Your task to perform on an android device: turn off airplane mode Image 0: 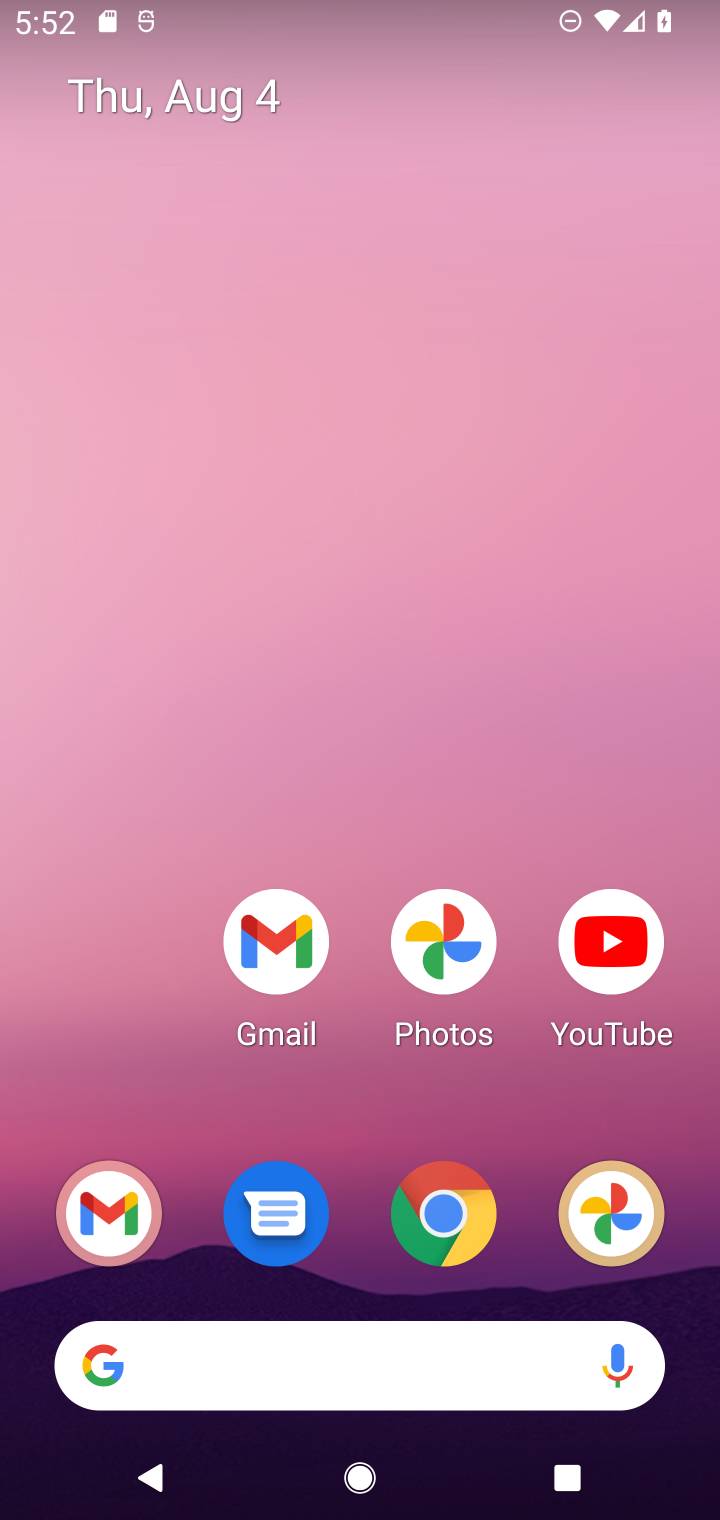
Step 0: press home button
Your task to perform on an android device: turn off airplane mode Image 1: 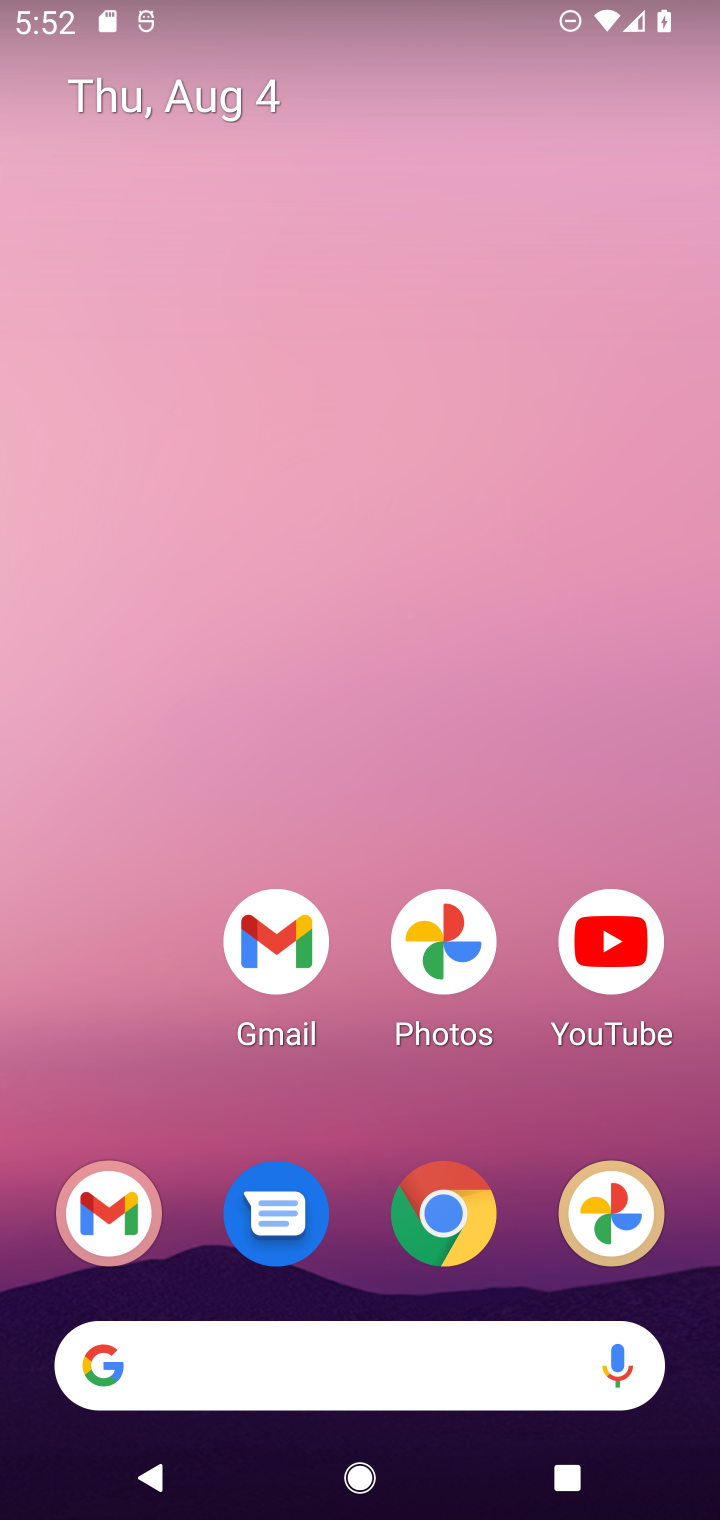
Step 1: drag from (162, 1034) to (204, 367)
Your task to perform on an android device: turn off airplane mode Image 2: 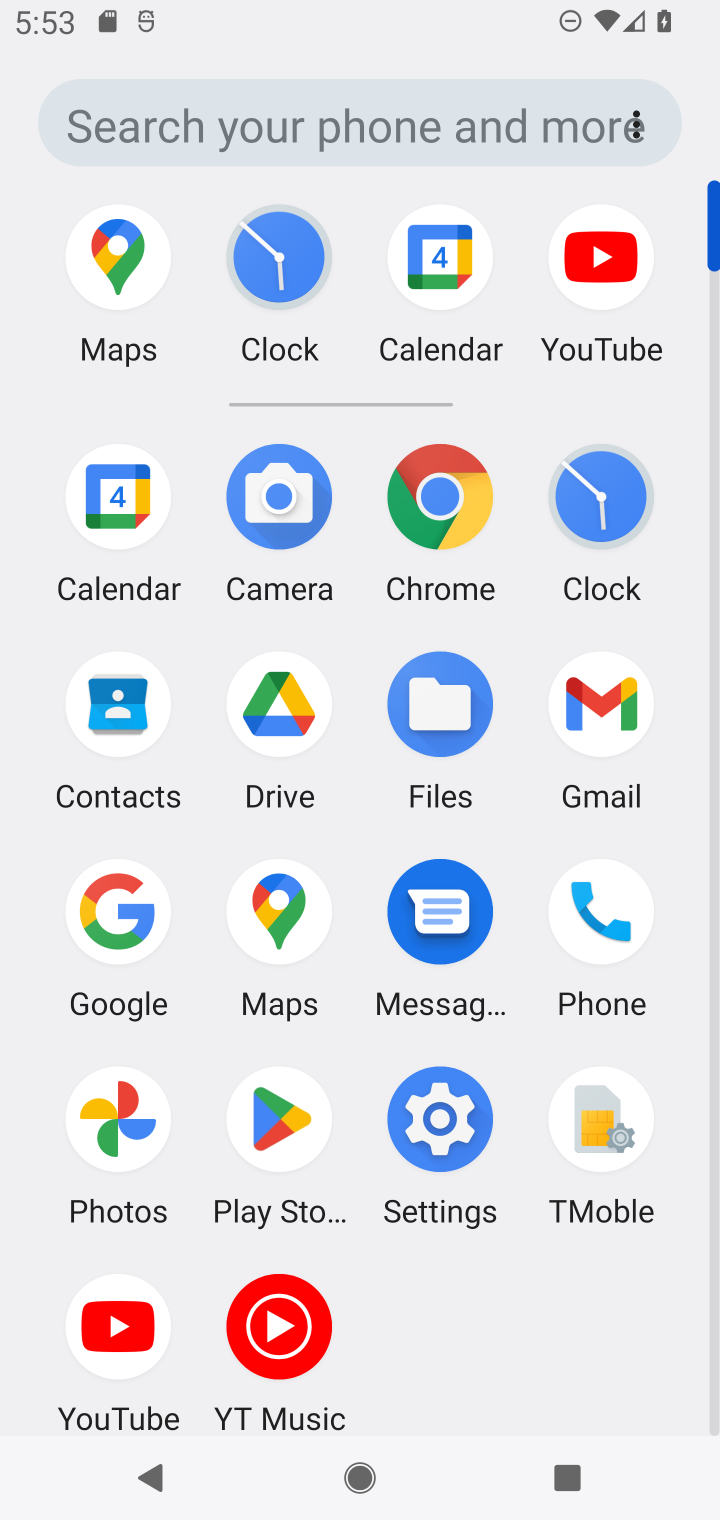
Step 2: click (445, 1128)
Your task to perform on an android device: turn off airplane mode Image 3: 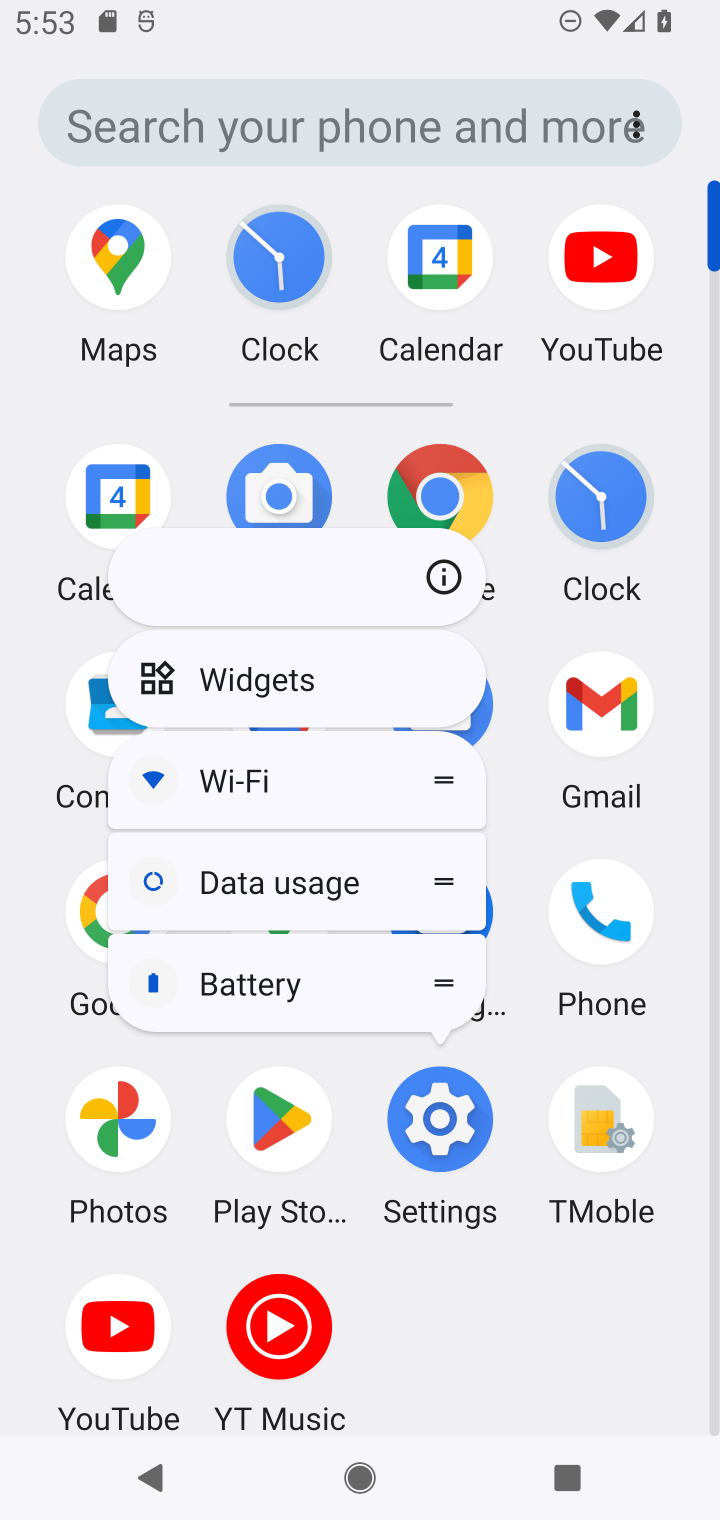
Step 3: click (451, 1119)
Your task to perform on an android device: turn off airplane mode Image 4: 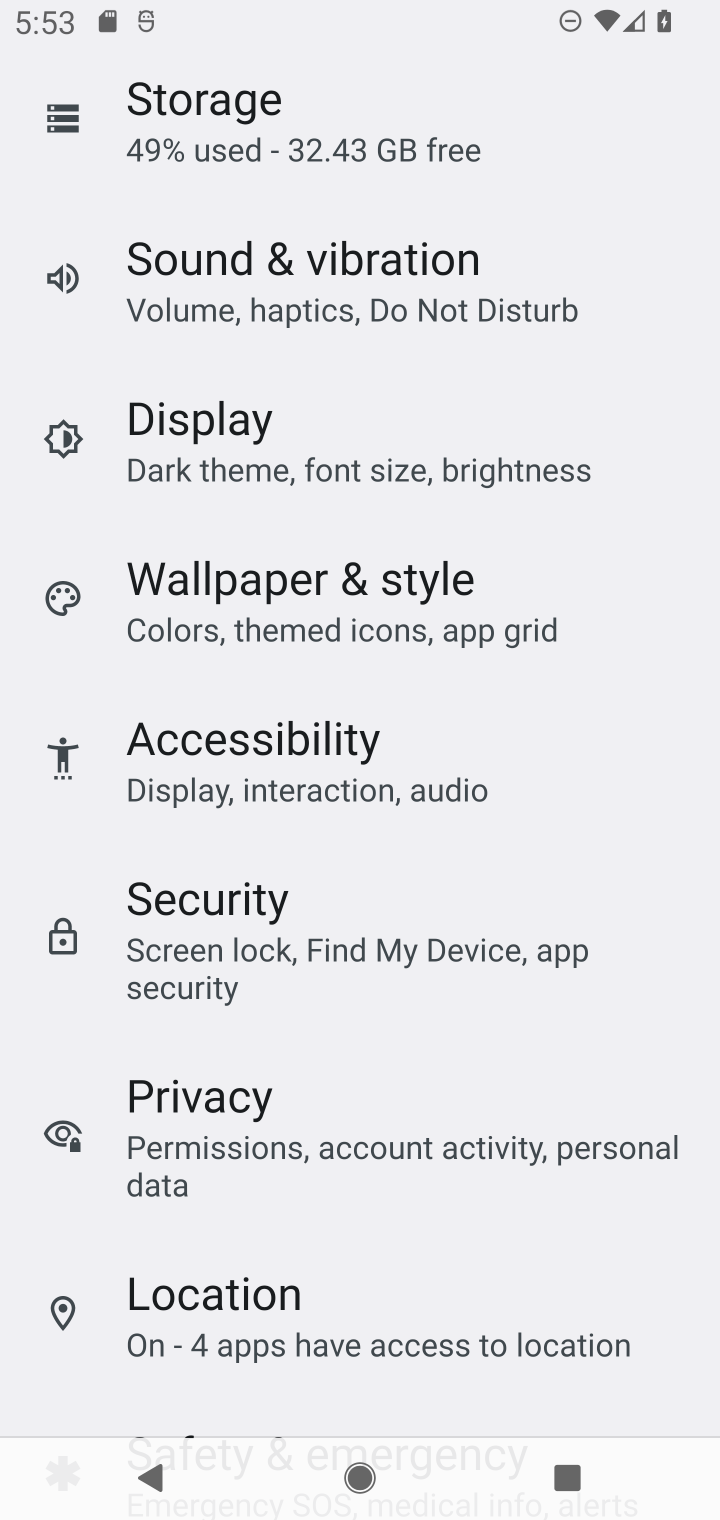
Step 4: drag from (607, 583) to (645, 887)
Your task to perform on an android device: turn off airplane mode Image 5: 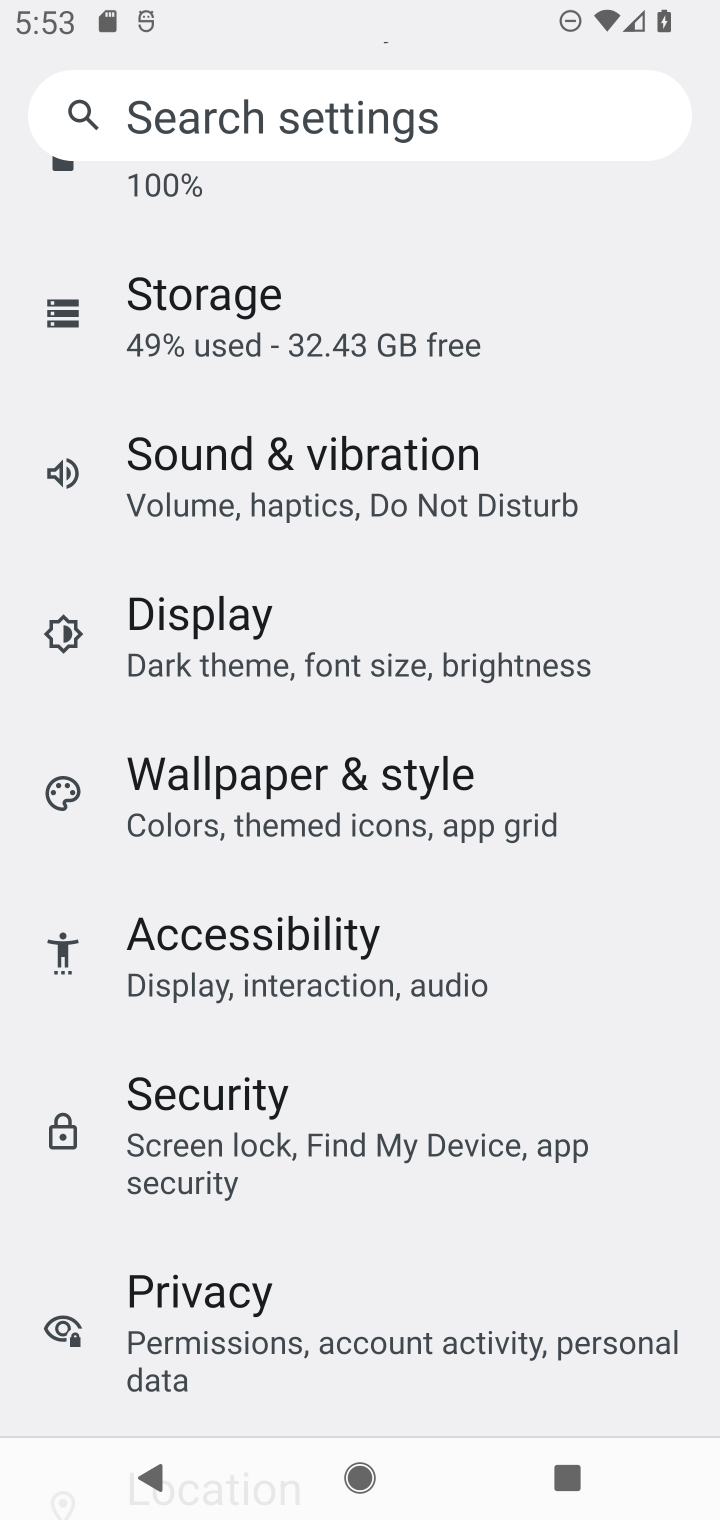
Step 5: drag from (623, 611) to (663, 911)
Your task to perform on an android device: turn off airplane mode Image 6: 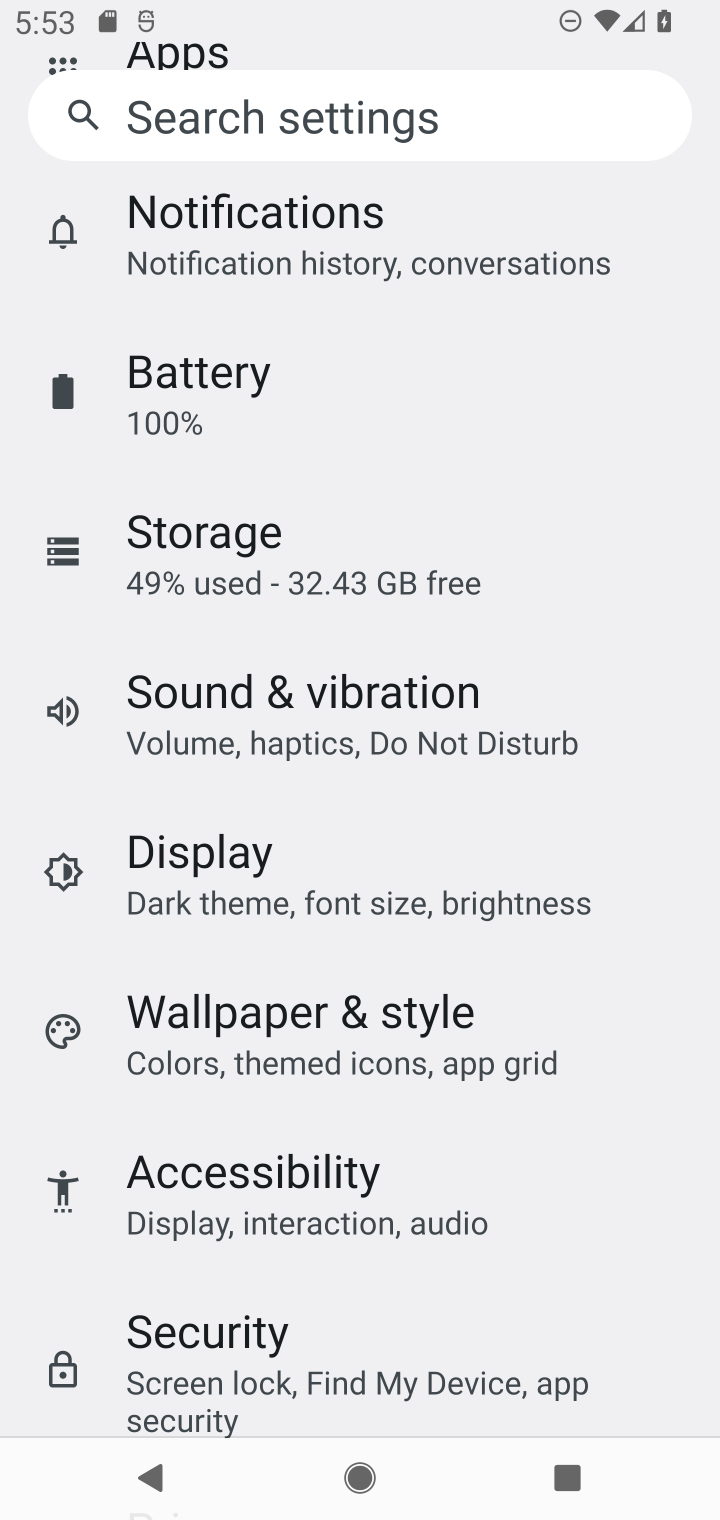
Step 6: drag from (610, 521) to (645, 848)
Your task to perform on an android device: turn off airplane mode Image 7: 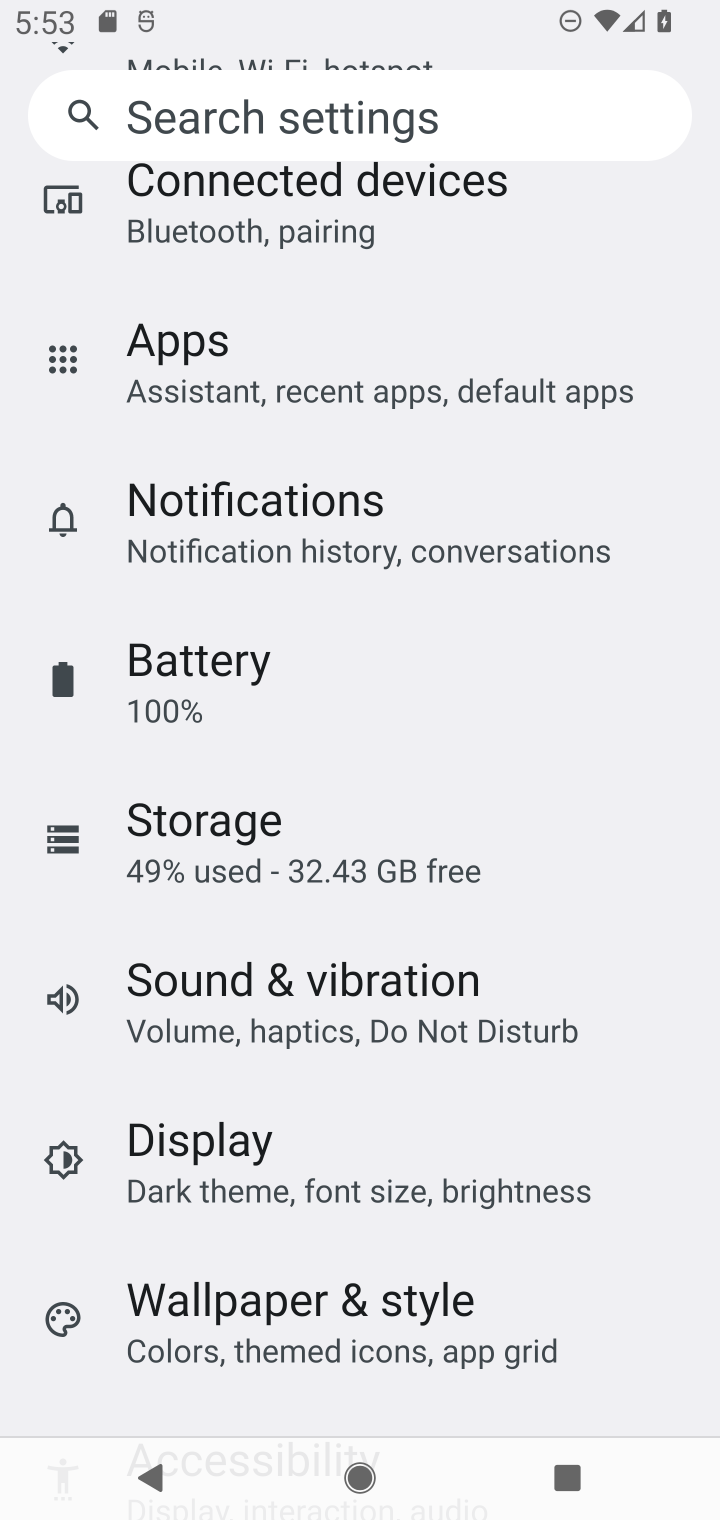
Step 7: drag from (630, 482) to (645, 918)
Your task to perform on an android device: turn off airplane mode Image 8: 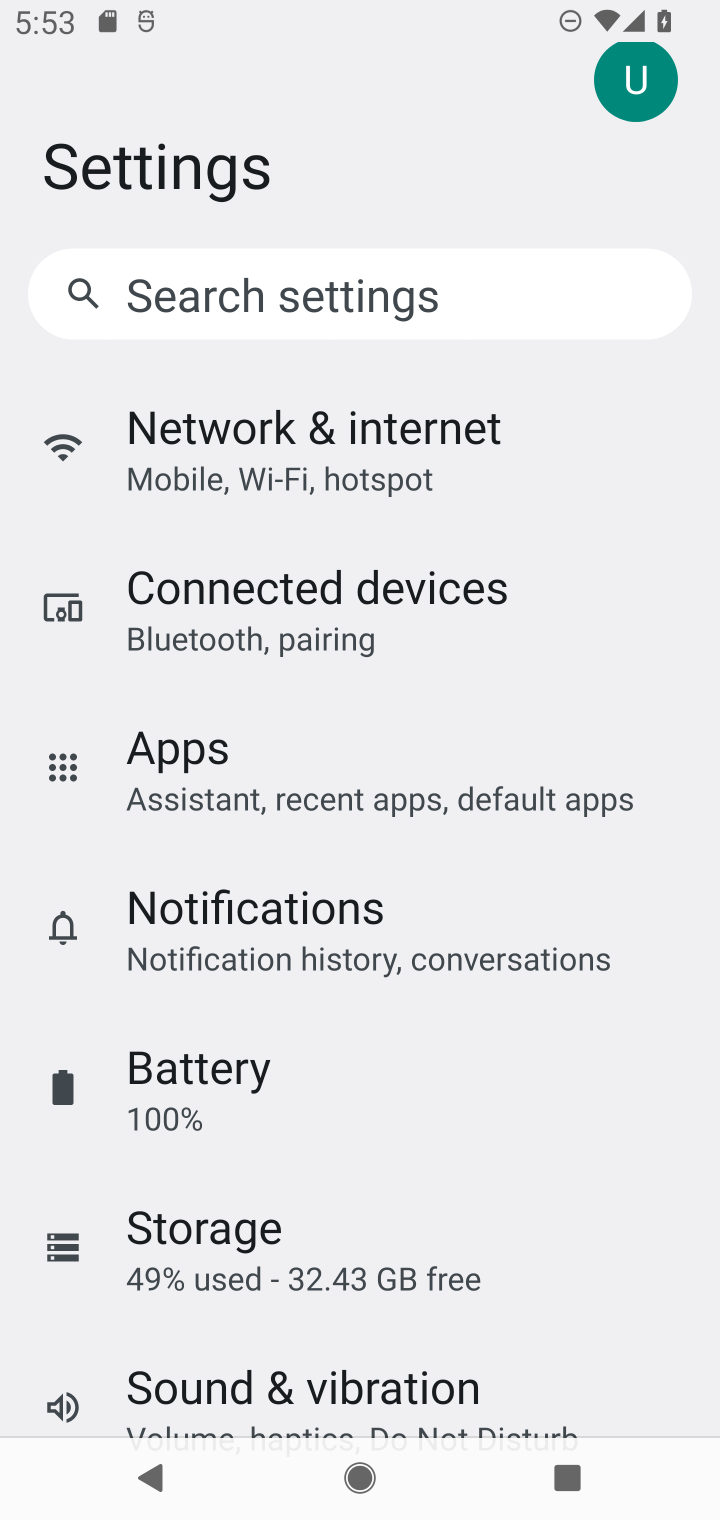
Step 8: click (430, 468)
Your task to perform on an android device: turn off airplane mode Image 9: 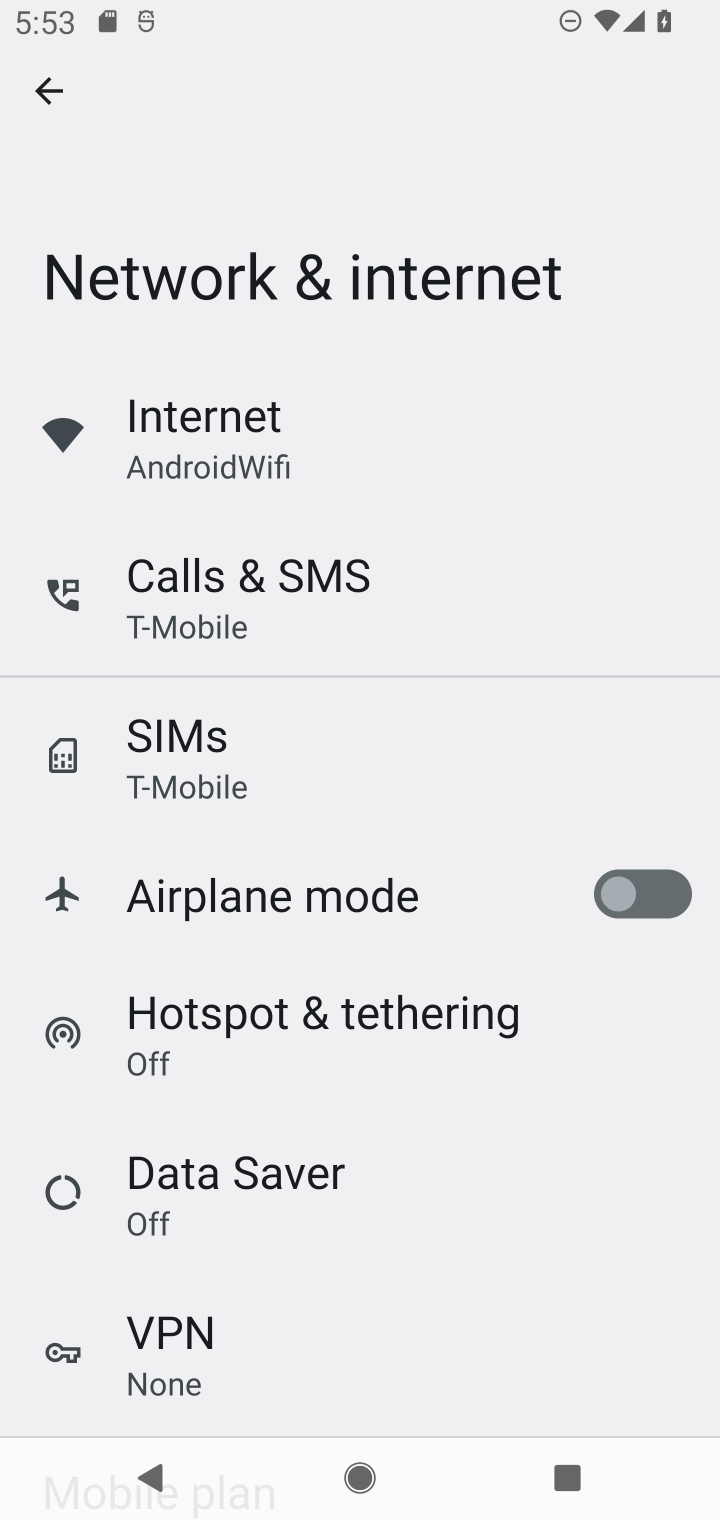
Step 9: task complete